Your task to perform on an android device: turn off javascript in the chrome app Image 0: 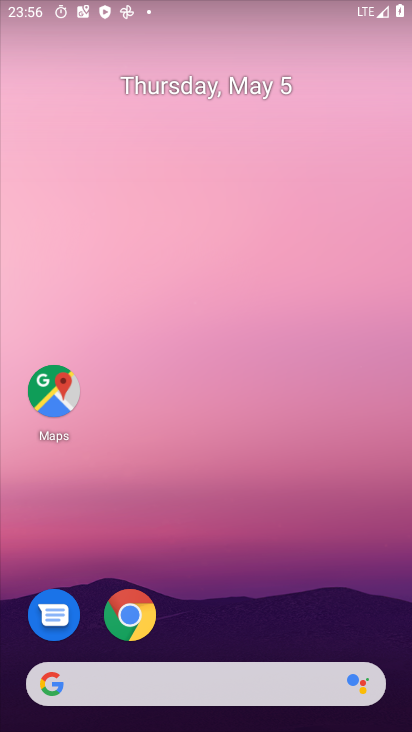
Step 0: press home button
Your task to perform on an android device: turn off javascript in the chrome app Image 1: 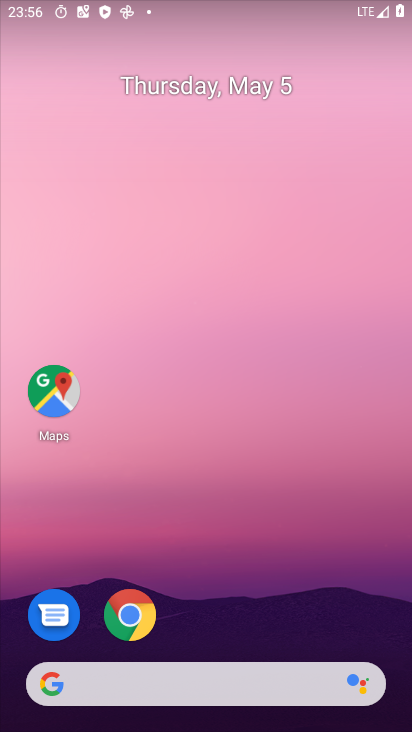
Step 1: click (132, 610)
Your task to perform on an android device: turn off javascript in the chrome app Image 2: 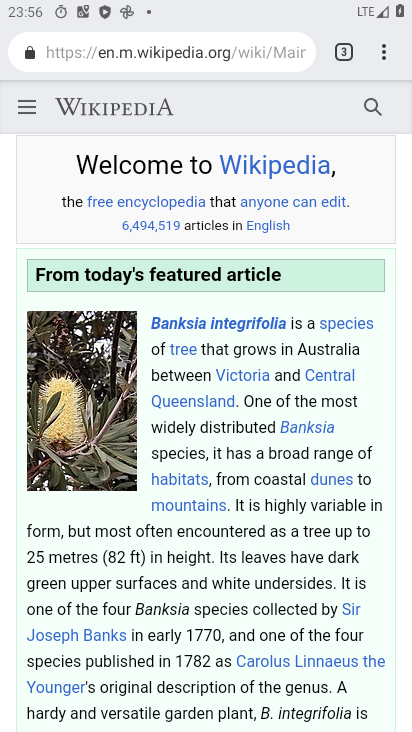
Step 2: click (376, 55)
Your task to perform on an android device: turn off javascript in the chrome app Image 3: 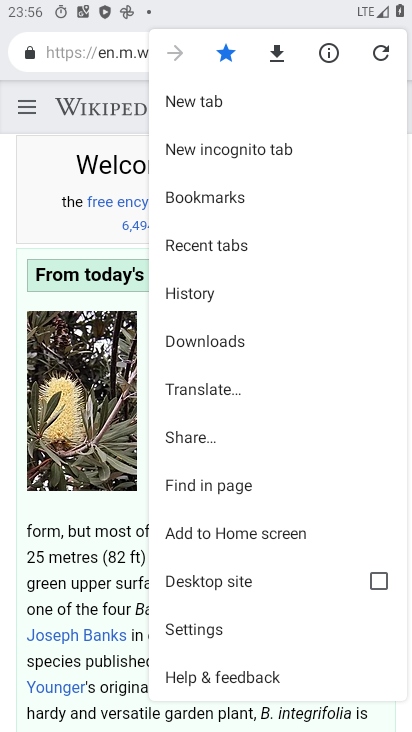
Step 3: click (228, 631)
Your task to perform on an android device: turn off javascript in the chrome app Image 4: 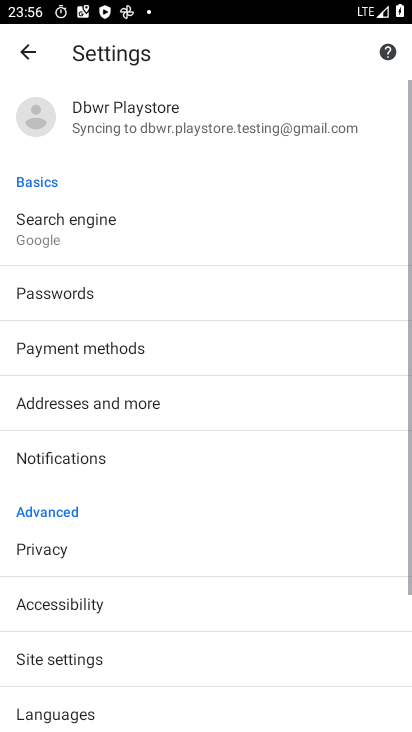
Step 4: drag from (163, 529) to (158, 211)
Your task to perform on an android device: turn off javascript in the chrome app Image 5: 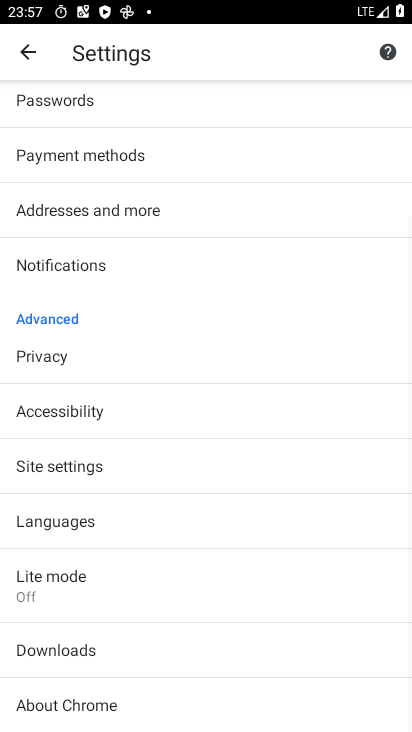
Step 5: click (88, 452)
Your task to perform on an android device: turn off javascript in the chrome app Image 6: 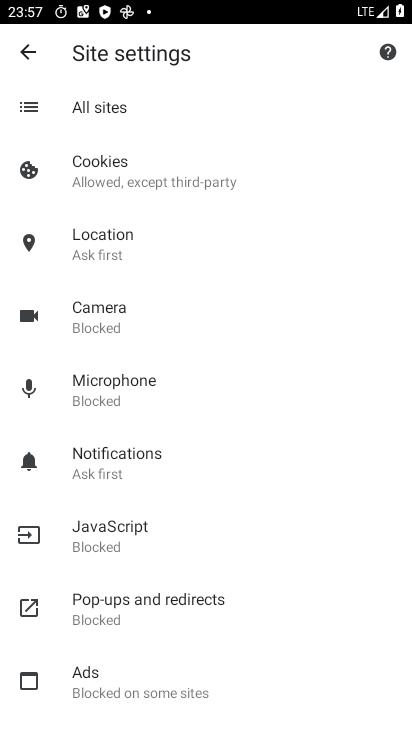
Step 6: click (111, 552)
Your task to perform on an android device: turn off javascript in the chrome app Image 7: 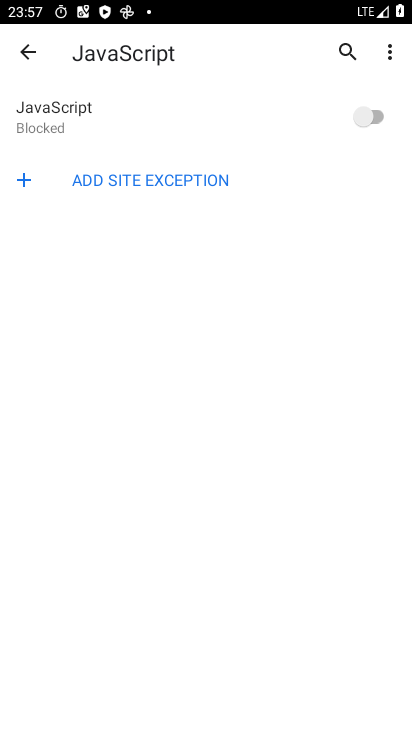
Step 7: task complete